Your task to perform on an android device: Open the phone app and click the voicemail tab. Image 0: 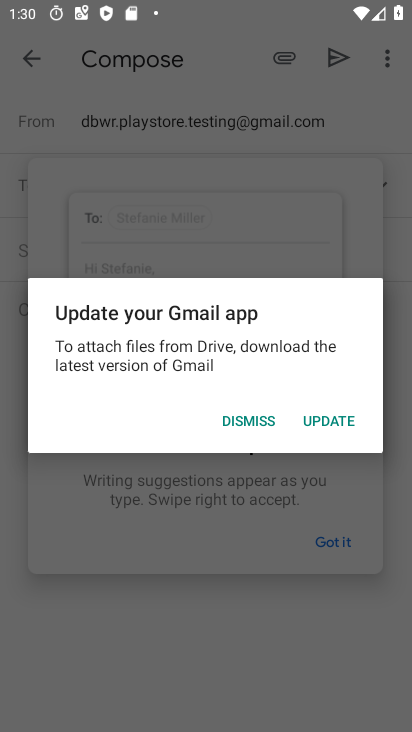
Step 0: press home button
Your task to perform on an android device: Open the phone app and click the voicemail tab. Image 1: 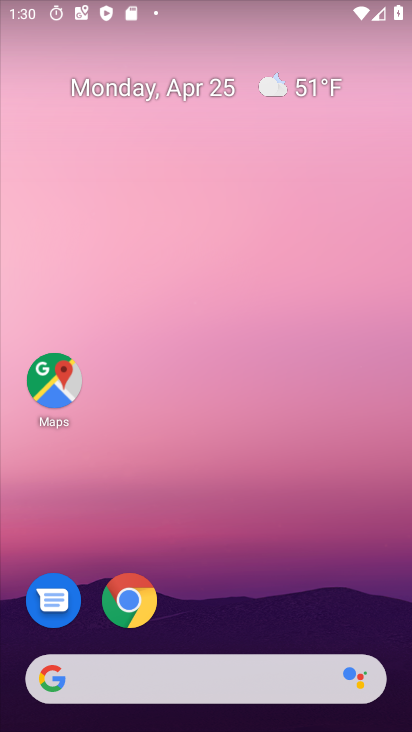
Step 1: drag from (207, 657) to (353, 131)
Your task to perform on an android device: Open the phone app and click the voicemail tab. Image 2: 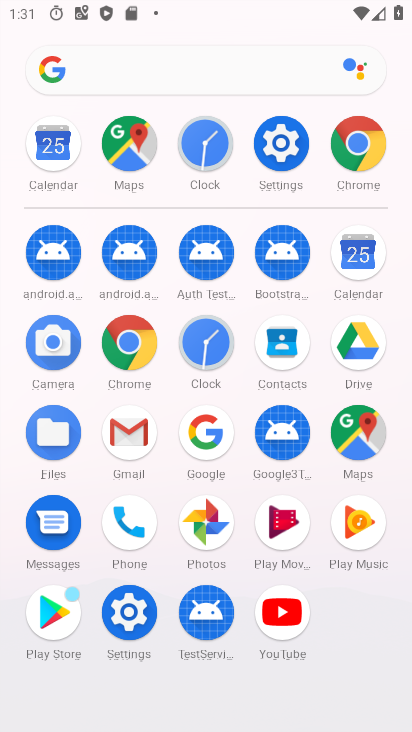
Step 2: click (130, 524)
Your task to perform on an android device: Open the phone app and click the voicemail tab. Image 3: 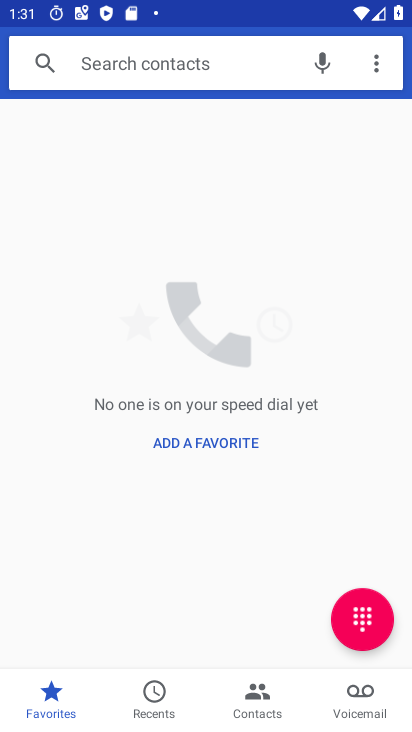
Step 3: click (354, 695)
Your task to perform on an android device: Open the phone app and click the voicemail tab. Image 4: 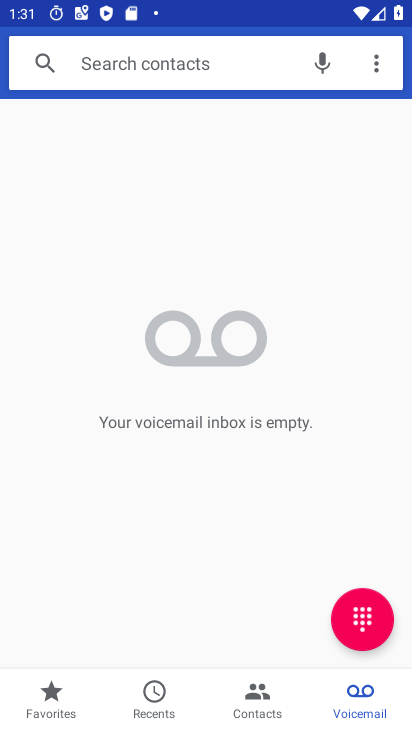
Step 4: task complete